Your task to perform on an android device: set the timer Image 0: 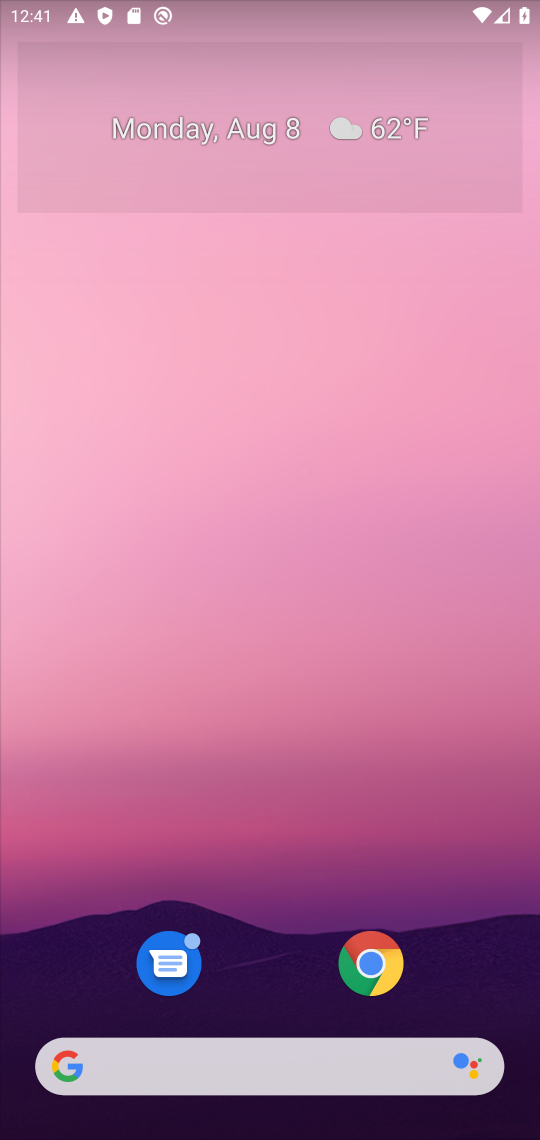
Step 0: drag from (467, 934) to (376, 5)
Your task to perform on an android device: set the timer Image 1: 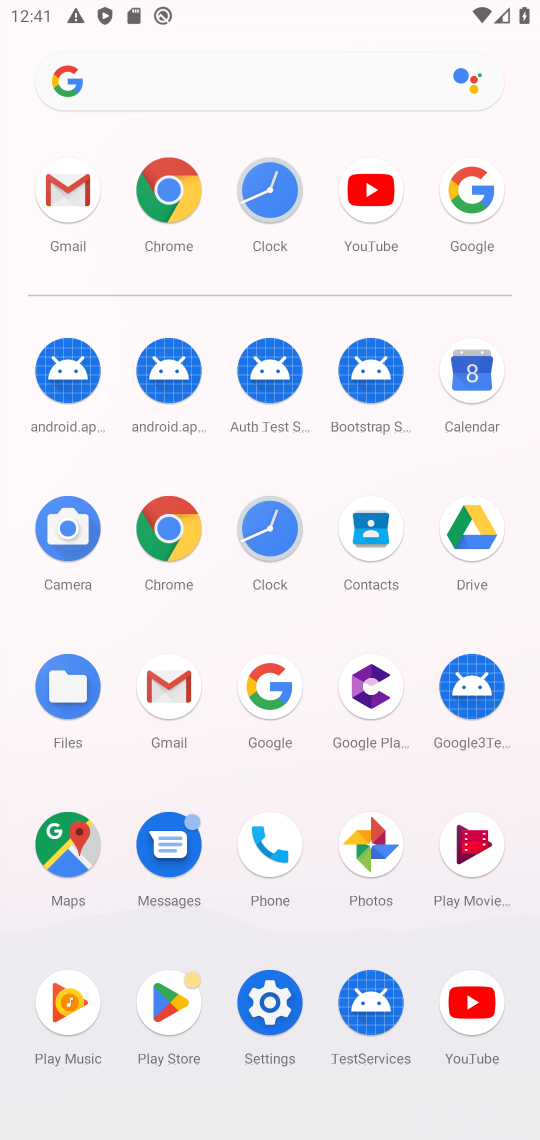
Step 1: click (279, 526)
Your task to perform on an android device: set the timer Image 2: 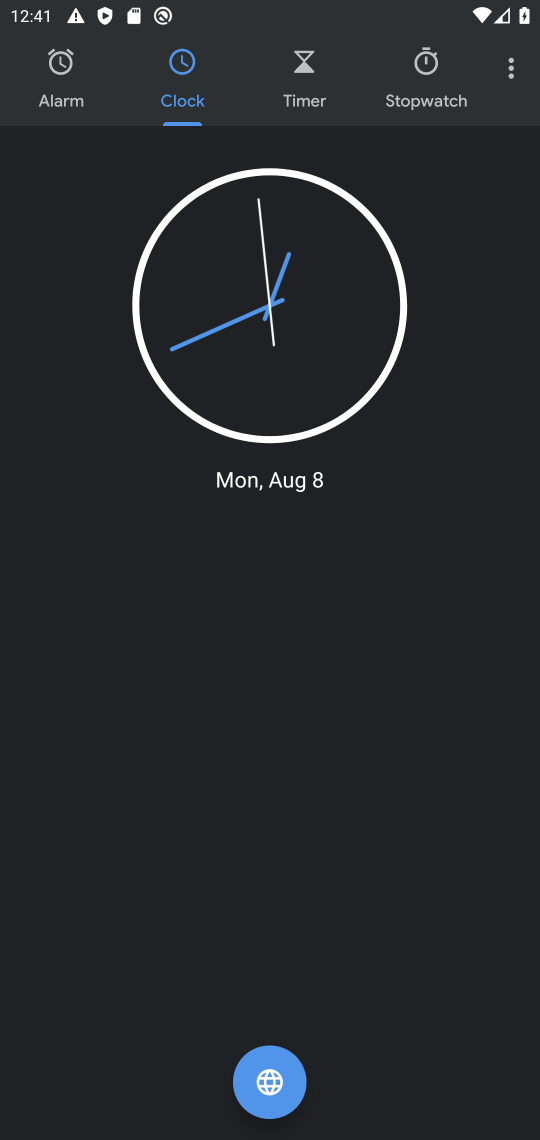
Step 2: click (308, 57)
Your task to perform on an android device: set the timer Image 3: 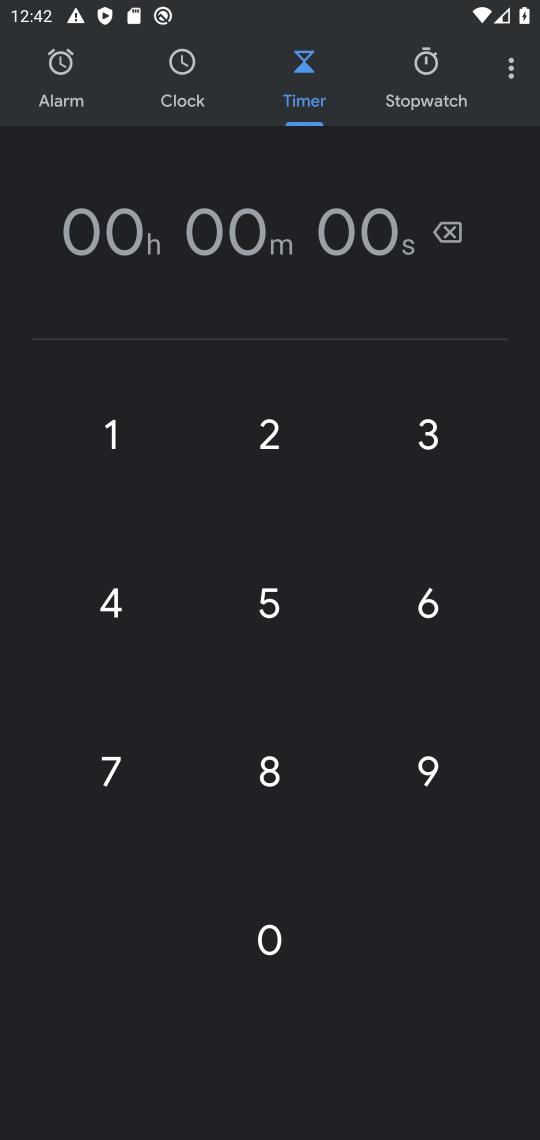
Step 3: click (301, 447)
Your task to perform on an android device: set the timer Image 4: 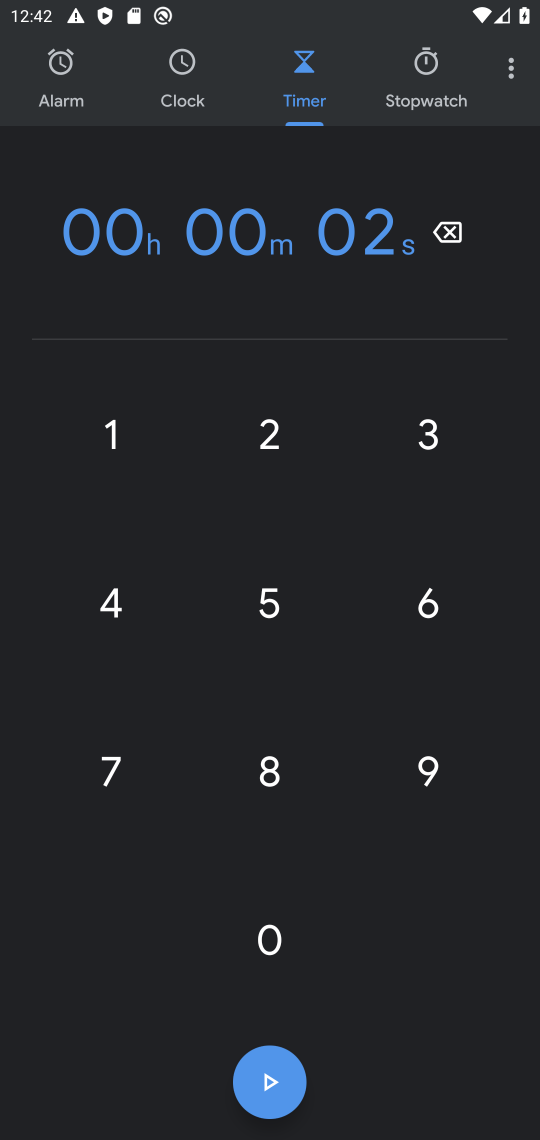
Step 4: click (278, 449)
Your task to perform on an android device: set the timer Image 5: 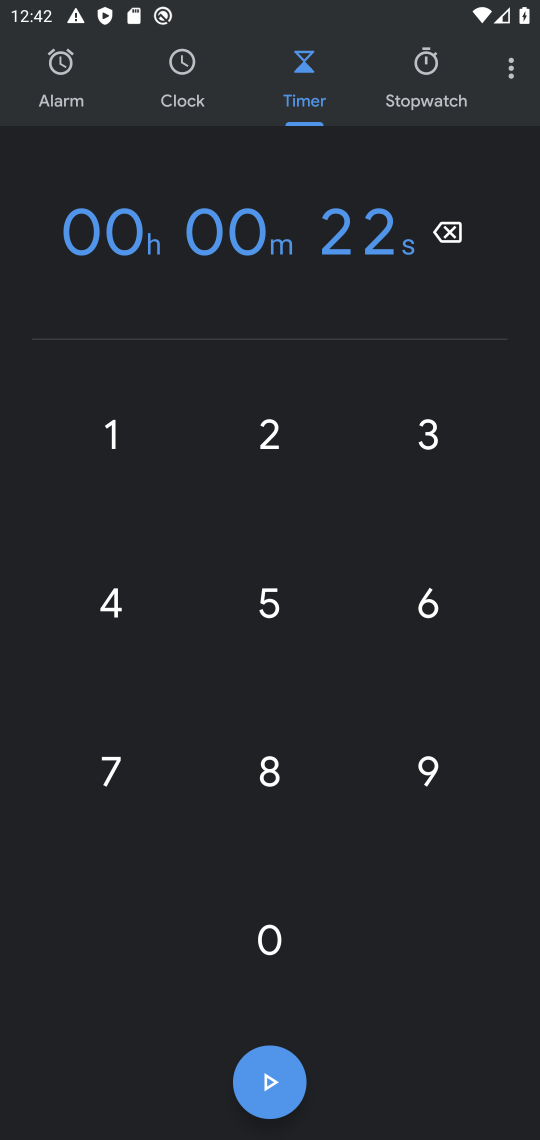
Step 5: click (278, 449)
Your task to perform on an android device: set the timer Image 6: 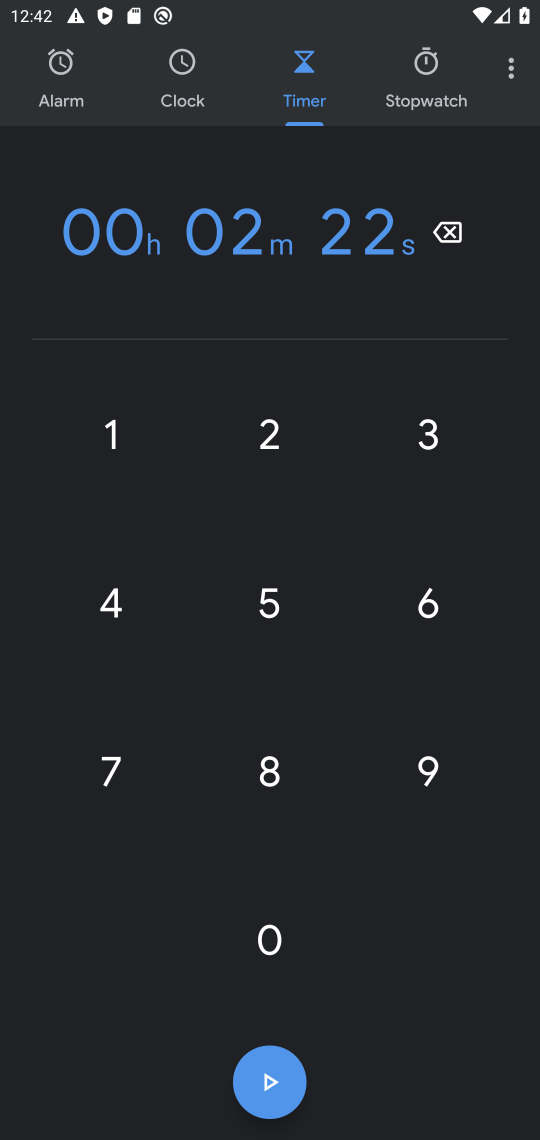
Step 6: click (278, 449)
Your task to perform on an android device: set the timer Image 7: 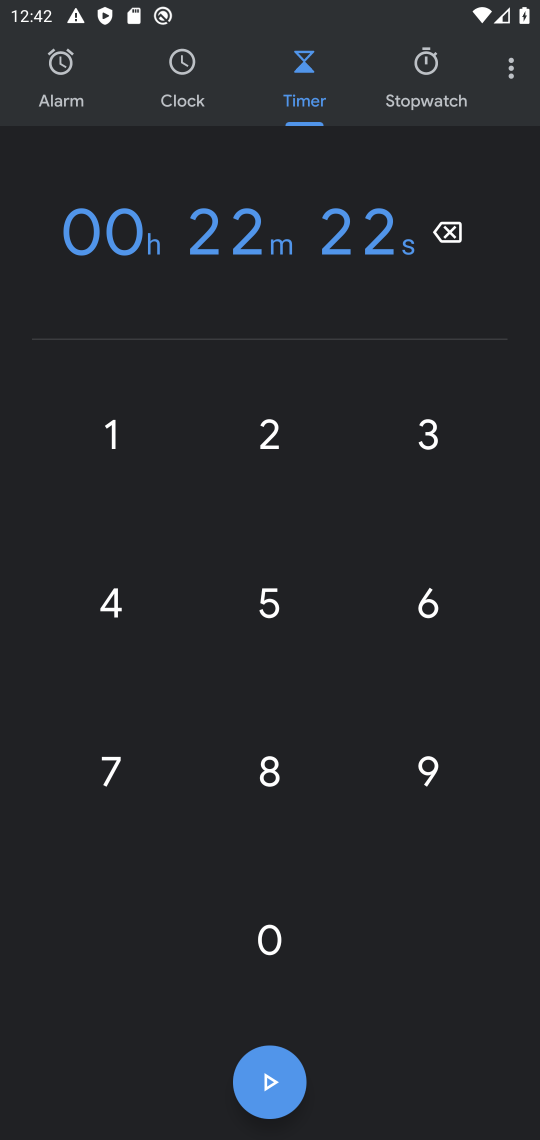
Step 7: click (278, 449)
Your task to perform on an android device: set the timer Image 8: 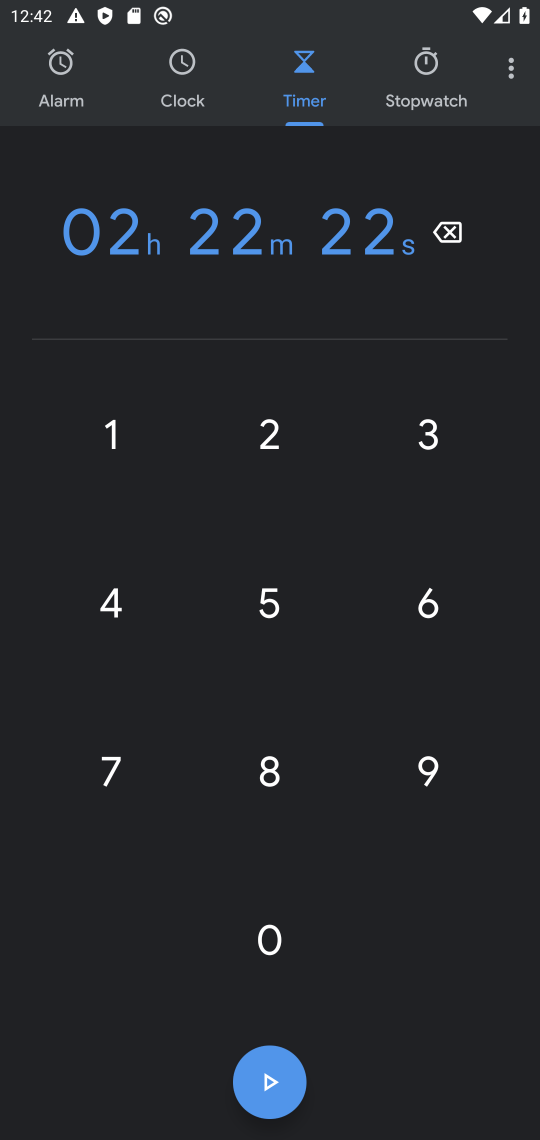
Step 8: task complete